Your task to perform on an android device: Go to Yahoo.com Image 0: 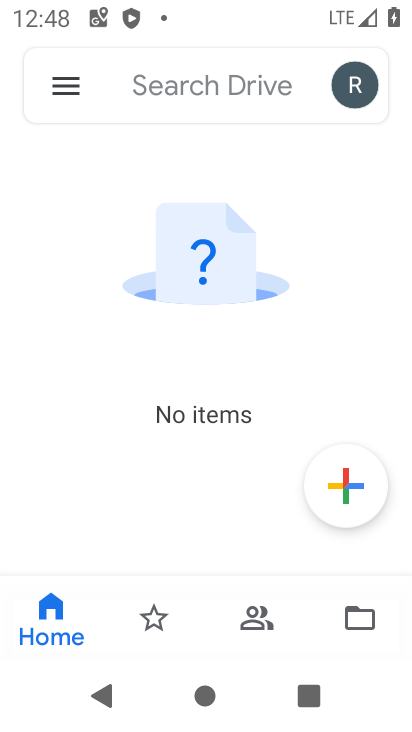
Step 0: press home button
Your task to perform on an android device: Go to Yahoo.com Image 1: 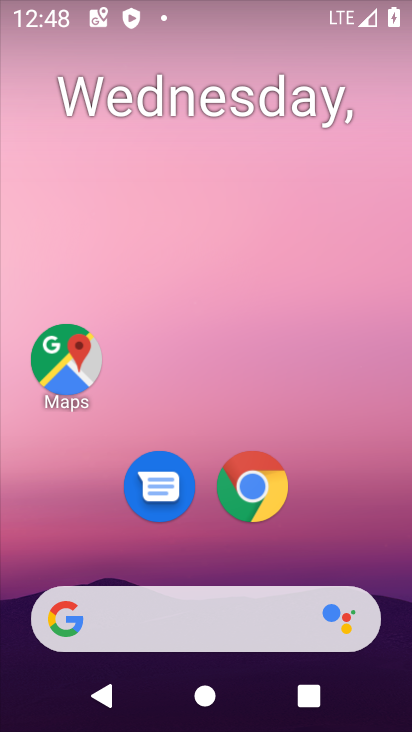
Step 1: drag from (361, 529) to (343, 57)
Your task to perform on an android device: Go to Yahoo.com Image 2: 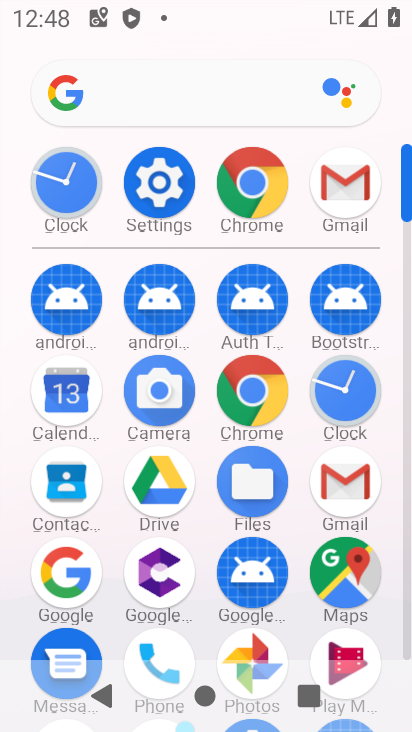
Step 2: click (259, 207)
Your task to perform on an android device: Go to Yahoo.com Image 3: 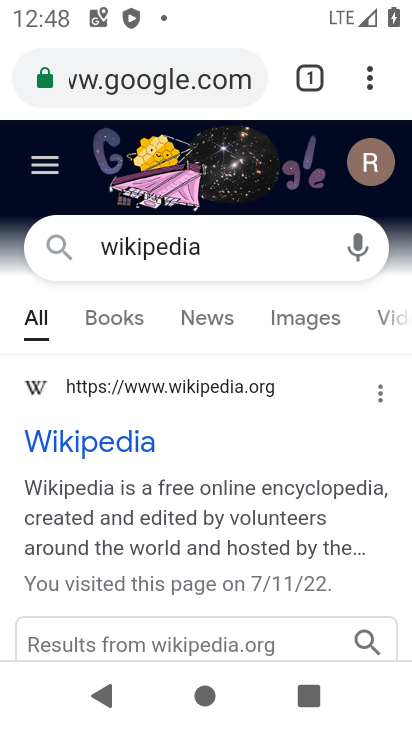
Step 3: click (212, 76)
Your task to perform on an android device: Go to Yahoo.com Image 4: 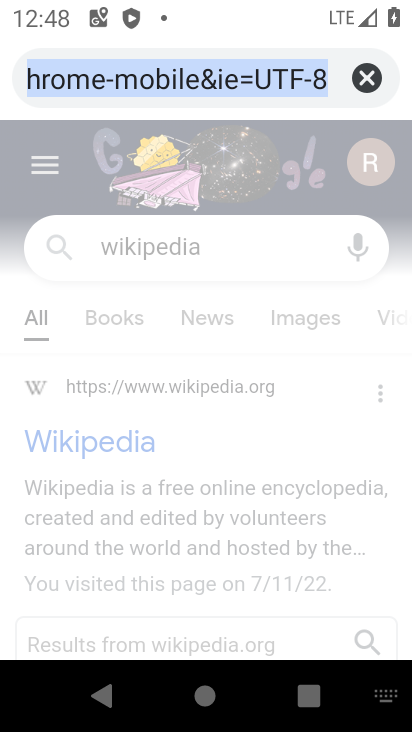
Step 4: type "yahoo.com"
Your task to perform on an android device: Go to Yahoo.com Image 5: 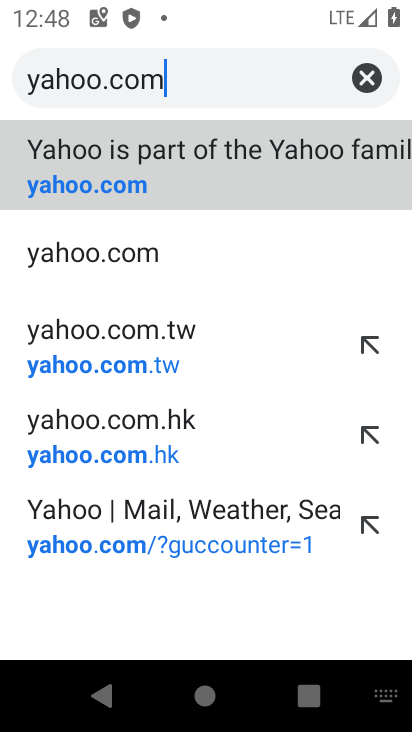
Step 5: click (255, 168)
Your task to perform on an android device: Go to Yahoo.com Image 6: 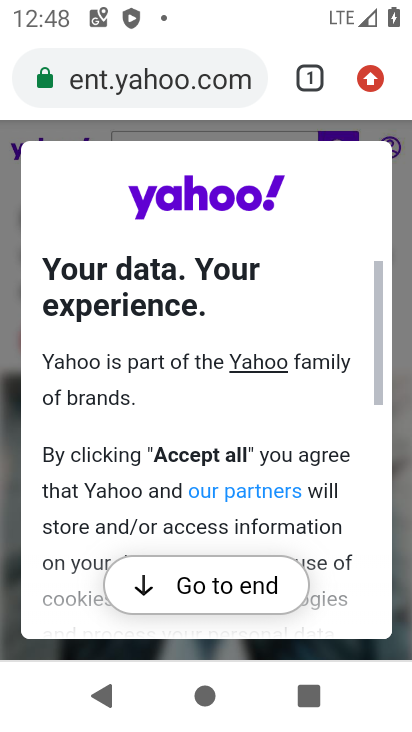
Step 6: task complete